Your task to perform on an android device: show emergency info Image 0: 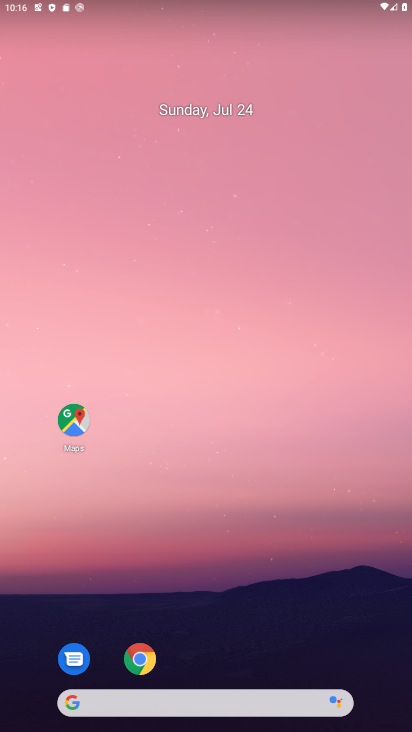
Step 0: drag from (388, 634) to (337, 5)
Your task to perform on an android device: show emergency info Image 1: 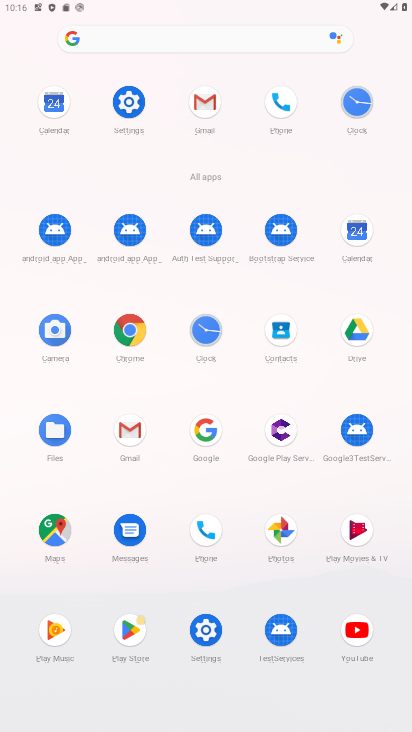
Step 1: click (122, 104)
Your task to perform on an android device: show emergency info Image 2: 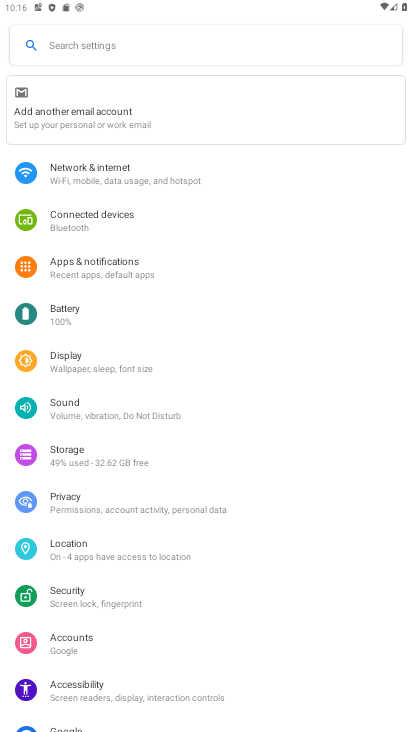
Step 2: drag from (309, 612) to (389, 126)
Your task to perform on an android device: show emergency info Image 3: 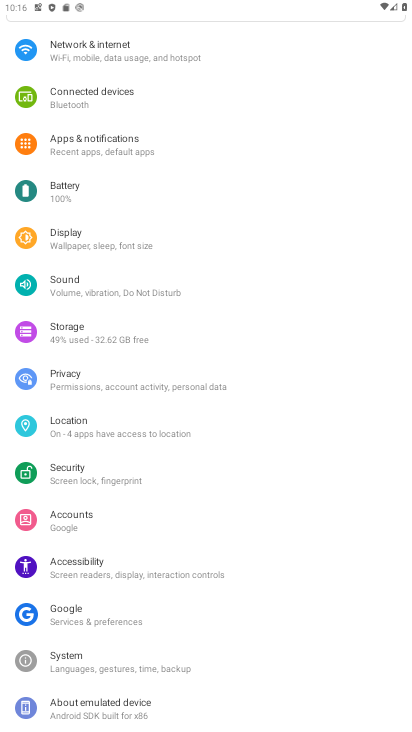
Step 3: click (118, 695)
Your task to perform on an android device: show emergency info Image 4: 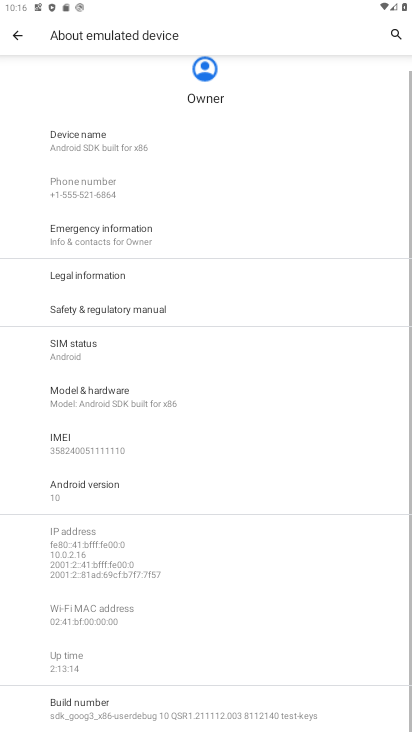
Step 4: click (95, 226)
Your task to perform on an android device: show emergency info Image 5: 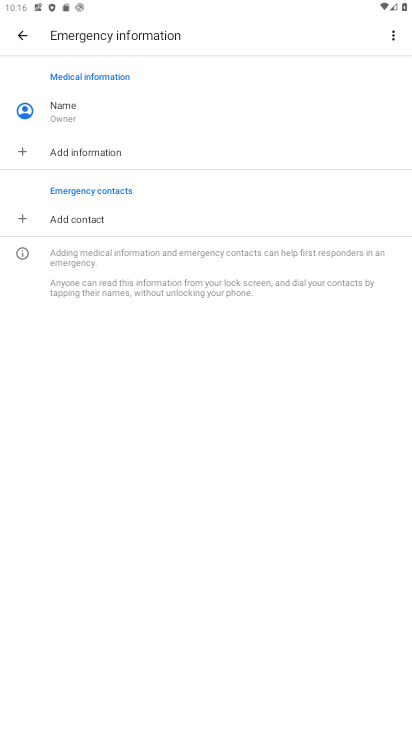
Step 5: task complete